Your task to perform on an android device: Search for the new Apple Watch on Best Buy Image 0: 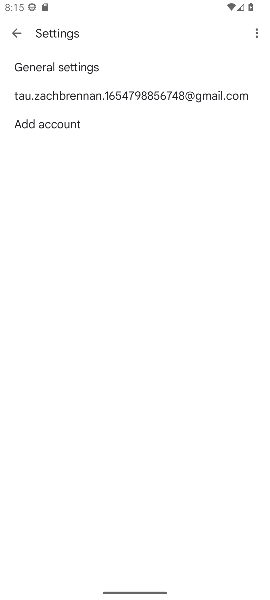
Step 0: press home button
Your task to perform on an android device: Search for the new Apple Watch on Best Buy Image 1: 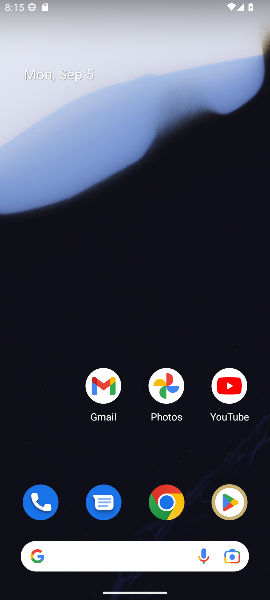
Step 1: drag from (202, 515) to (126, 32)
Your task to perform on an android device: Search for the new Apple Watch on Best Buy Image 2: 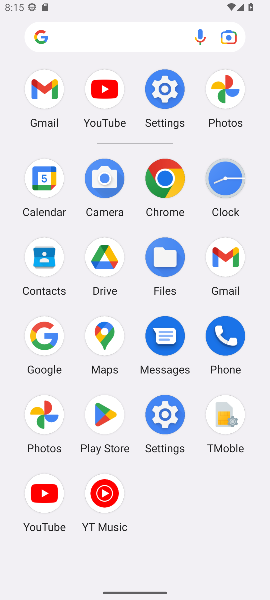
Step 2: click (37, 335)
Your task to perform on an android device: Search for the new Apple Watch on Best Buy Image 3: 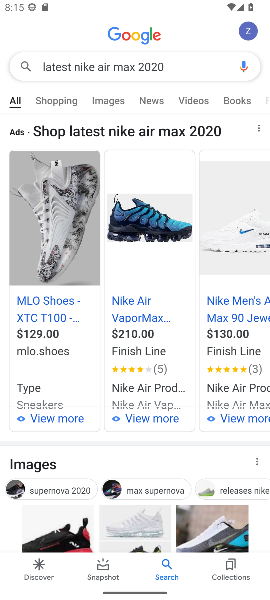
Step 3: press back button
Your task to perform on an android device: Search for the new Apple Watch on Best Buy Image 4: 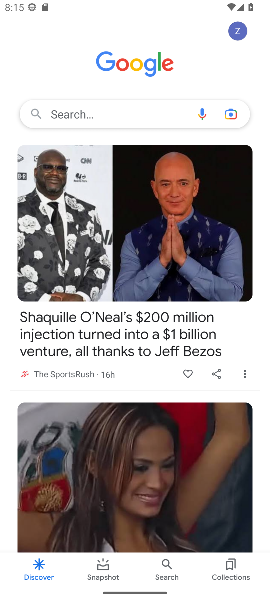
Step 4: click (123, 105)
Your task to perform on an android device: Search for the new Apple Watch on Best Buy Image 5: 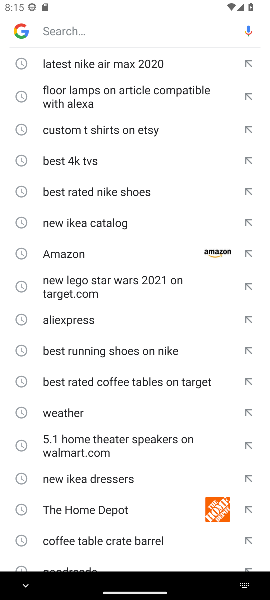
Step 5: type "new Apple Watch on Best Buy"
Your task to perform on an android device: Search for the new Apple Watch on Best Buy Image 6: 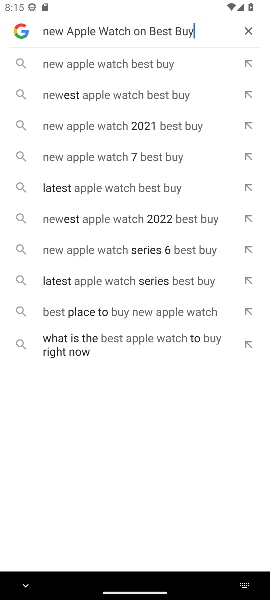
Step 6: click (111, 63)
Your task to perform on an android device: Search for the new Apple Watch on Best Buy Image 7: 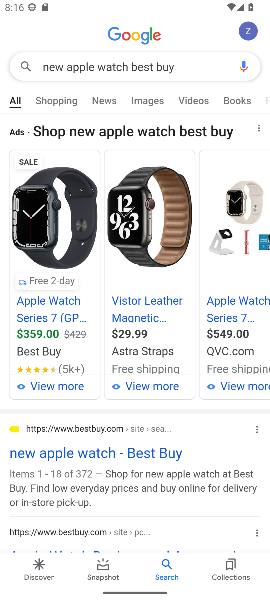
Step 7: task complete